Your task to perform on an android device: Open Google Chrome and click the shortcut for Amazon.com Image 0: 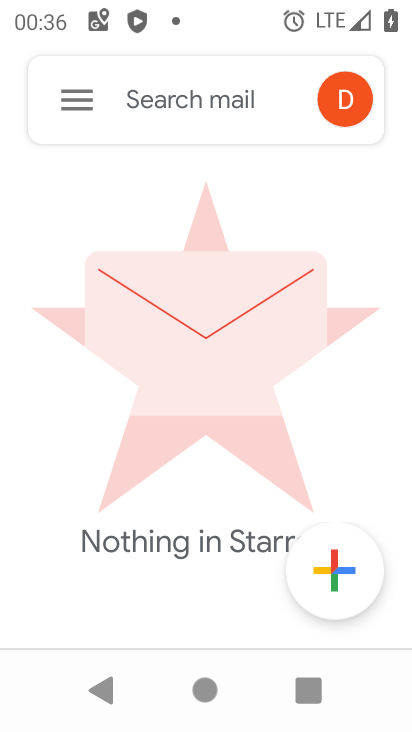
Step 0: press home button
Your task to perform on an android device: Open Google Chrome and click the shortcut for Amazon.com Image 1: 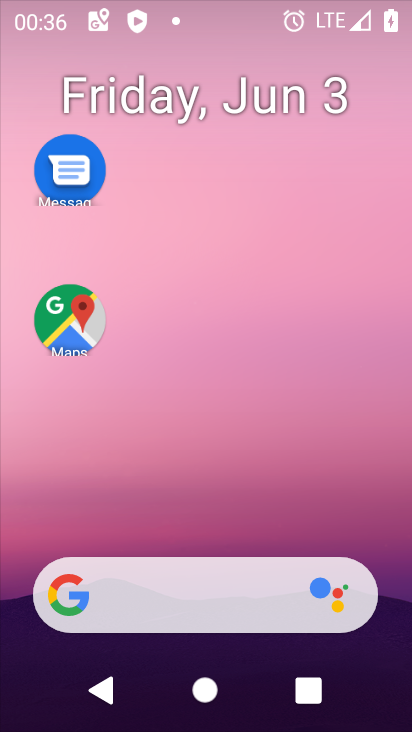
Step 1: drag from (197, 500) to (246, 2)
Your task to perform on an android device: Open Google Chrome and click the shortcut for Amazon.com Image 2: 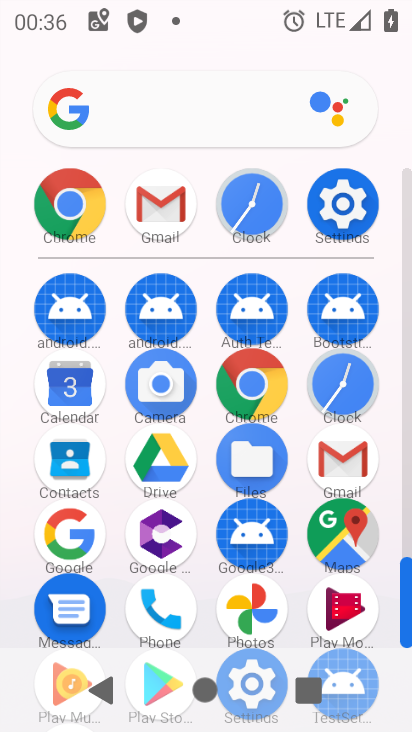
Step 2: click (37, 198)
Your task to perform on an android device: Open Google Chrome and click the shortcut for Amazon.com Image 3: 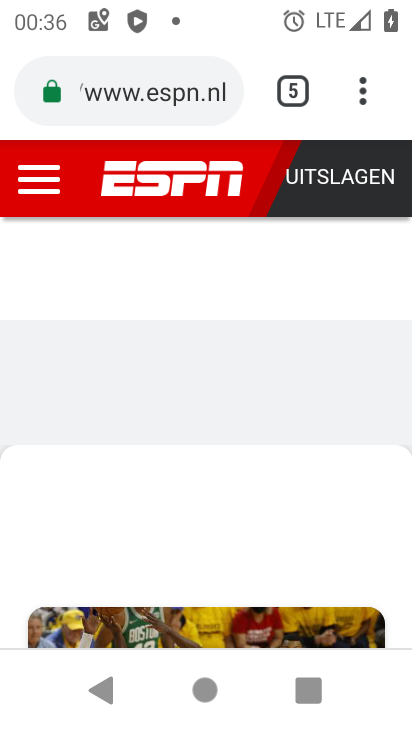
Step 3: drag from (354, 98) to (74, 178)
Your task to perform on an android device: Open Google Chrome and click the shortcut for Amazon.com Image 4: 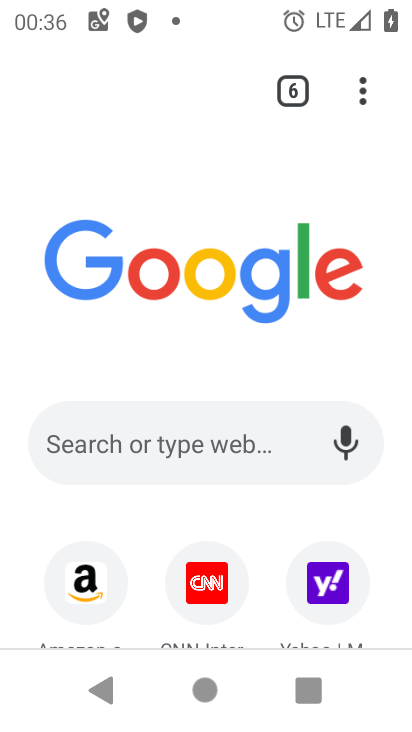
Step 4: click (105, 585)
Your task to perform on an android device: Open Google Chrome and click the shortcut for Amazon.com Image 5: 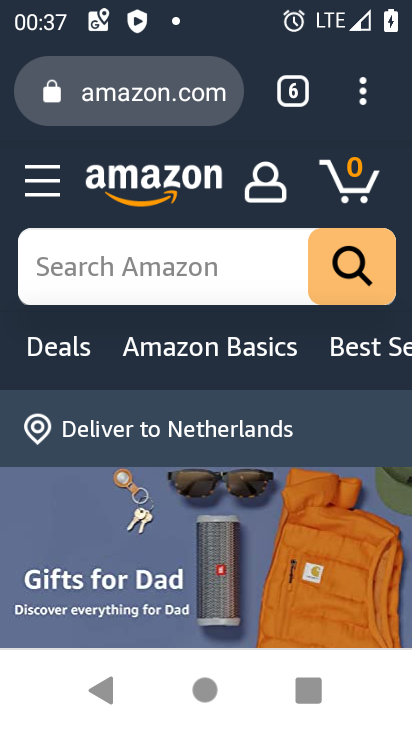
Step 5: task complete